Your task to perform on an android device: What's on my calendar today? Image 0: 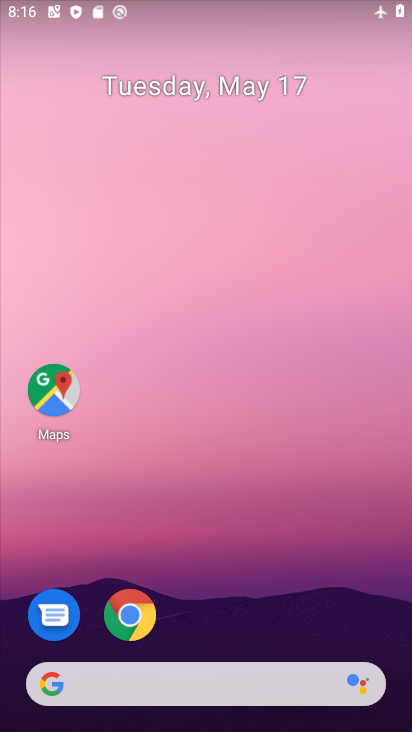
Step 0: drag from (284, 612) to (222, 208)
Your task to perform on an android device: What's on my calendar today? Image 1: 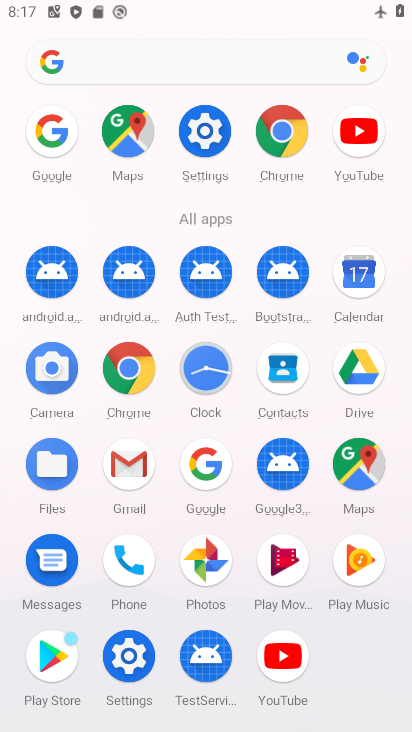
Step 1: click (364, 265)
Your task to perform on an android device: What's on my calendar today? Image 2: 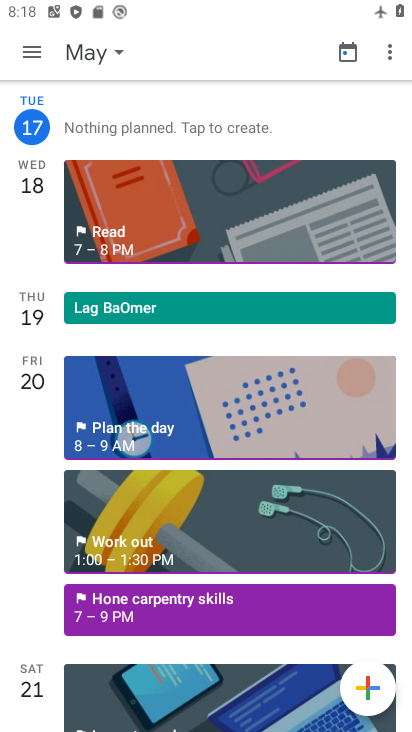
Step 2: task complete